Your task to perform on an android device: install app "Booking.com: Hotels and more" Image 0: 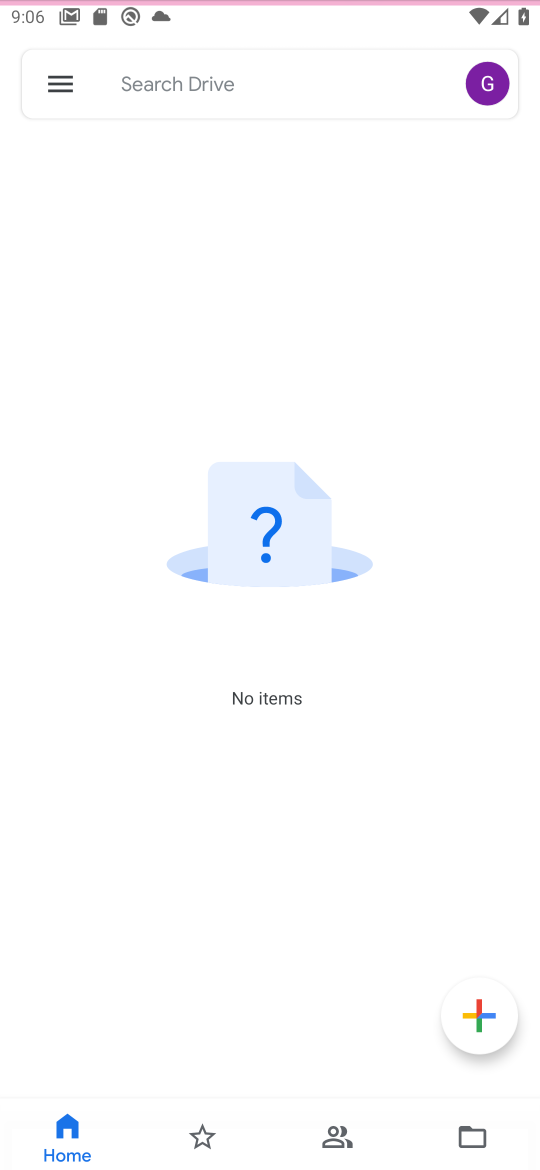
Step 0: press home button
Your task to perform on an android device: install app "Booking.com: Hotels and more" Image 1: 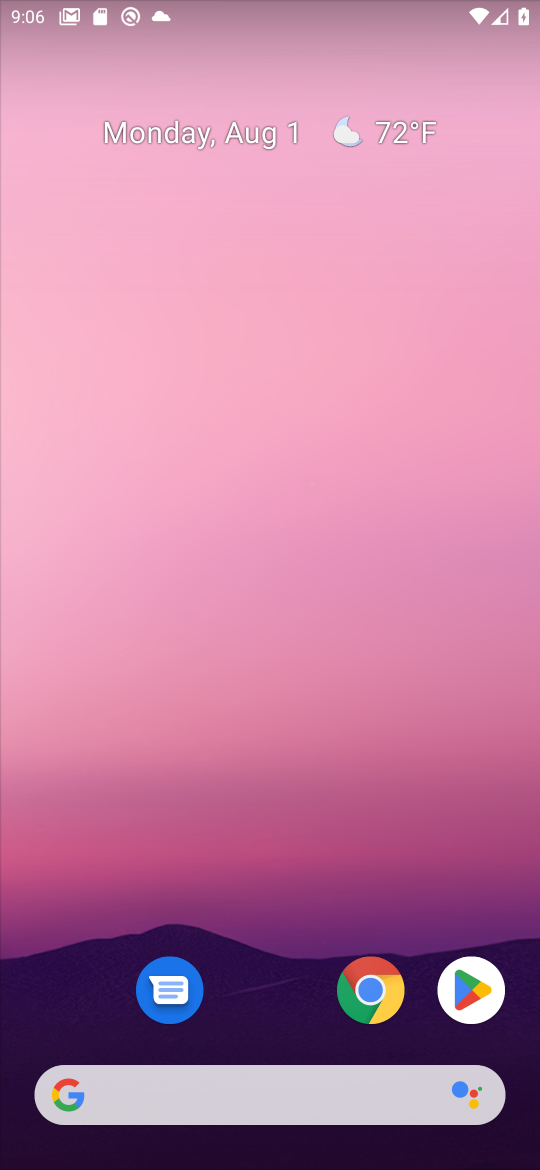
Step 1: click (468, 990)
Your task to perform on an android device: install app "Booking.com: Hotels and more" Image 2: 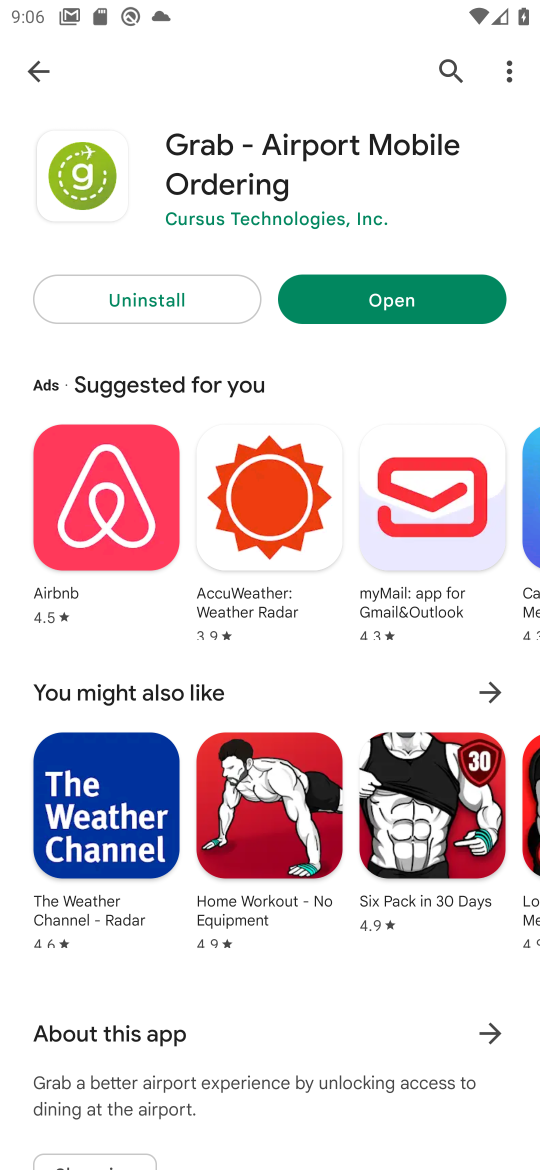
Step 2: click (443, 52)
Your task to perform on an android device: install app "Booking.com: Hotels and more" Image 3: 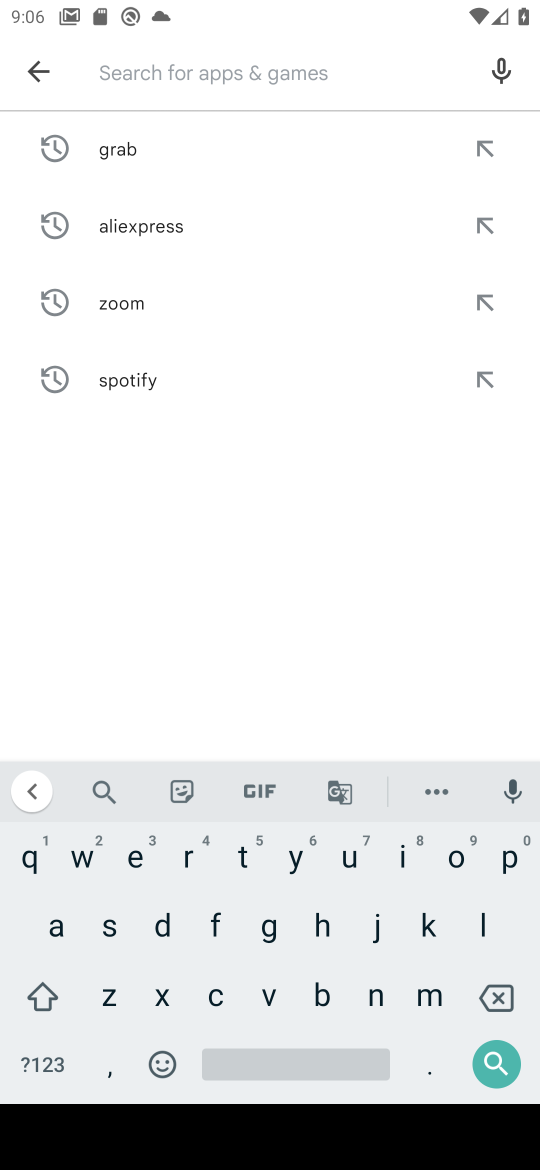
Step 3: click (212, 994)
Your task to perform on an android device: install app "Booking.com: Hotels and more" Image 4: 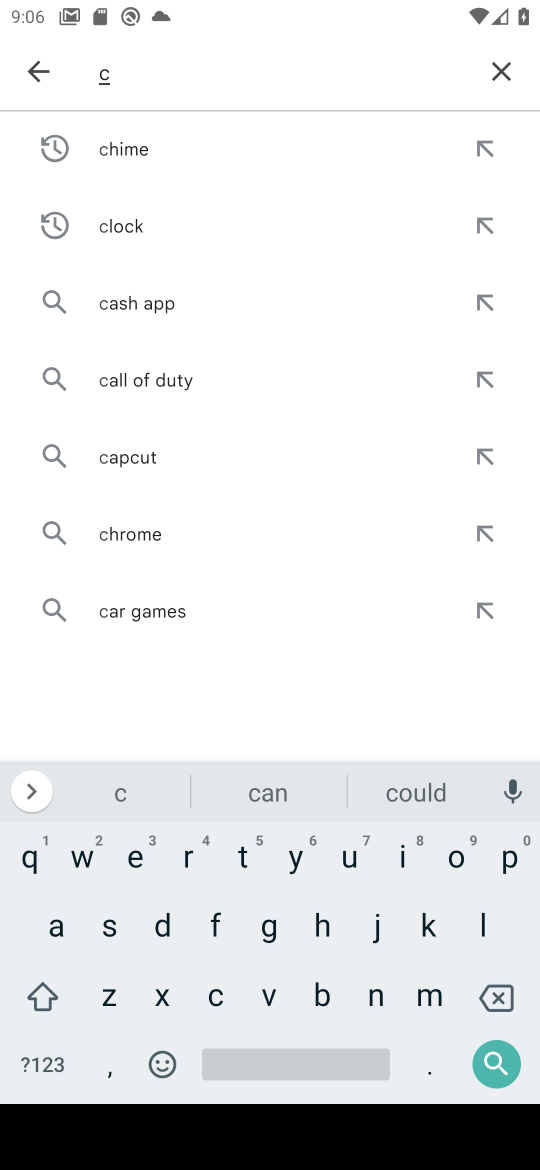
Step 4: click (320, 916)
Your task to perform on an android device: install app "Booking.com: Hotels and more" Image 5: 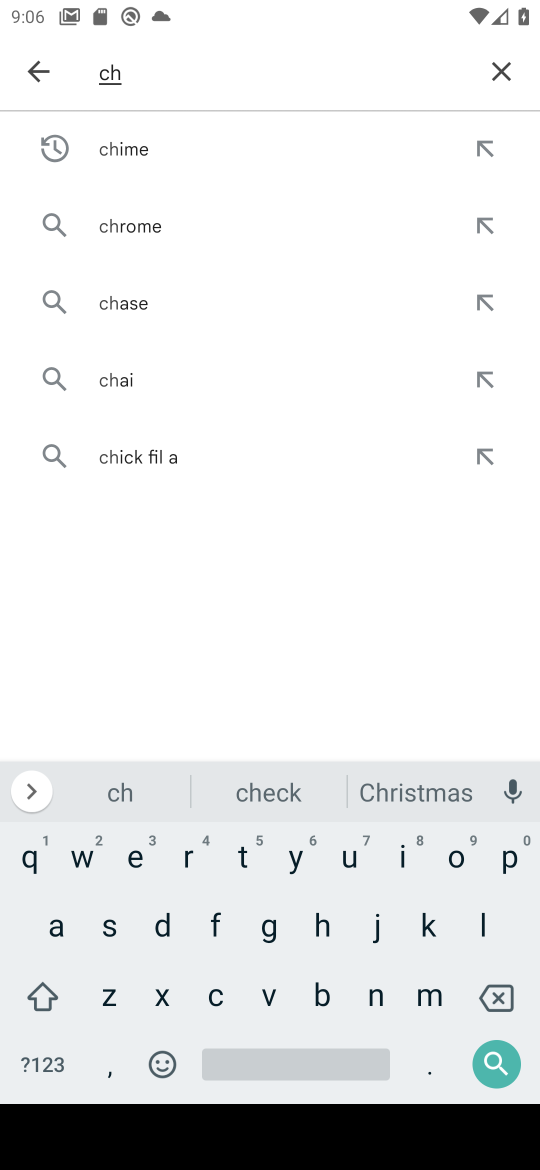
Step 5: click (395, 845)
Your task to perform on an android device: install app "Booking.com: Hotels and more" Image 6: 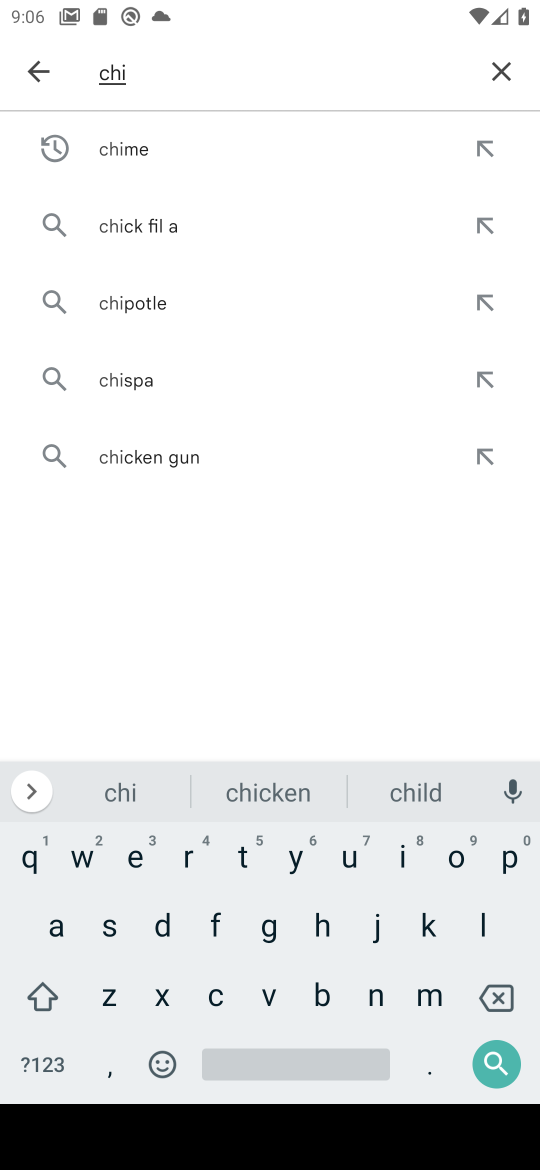
Step 6: click (422, 980)
Your task to perform on an android device: install app "Booking.com: Hotels and more" Image 7: 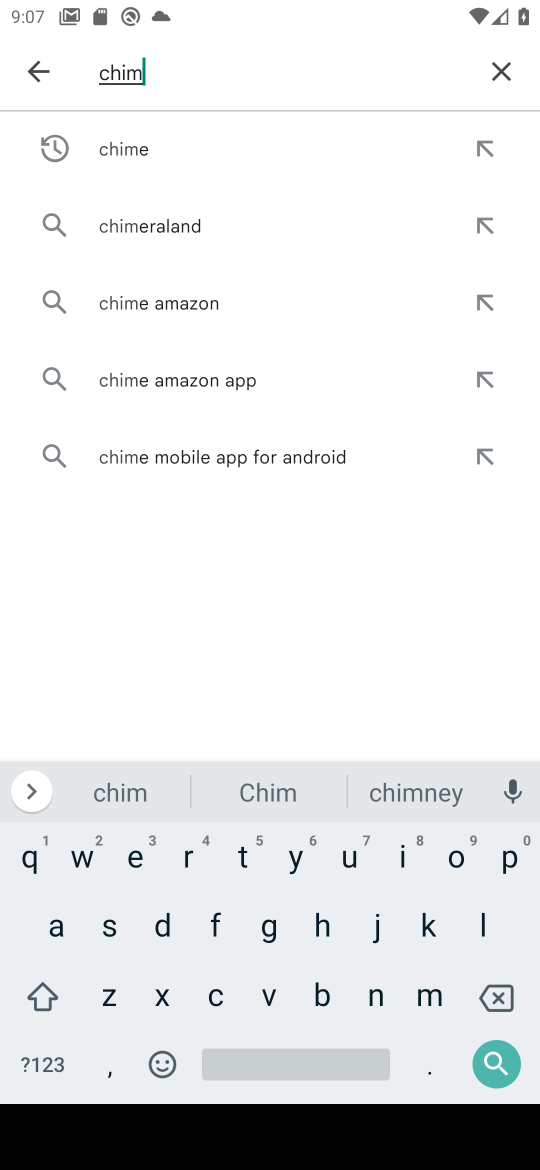
Step 7: click (131, 153)
Your task to perform on an android device: install app "Booking.com: Hotels and more" Image 8: 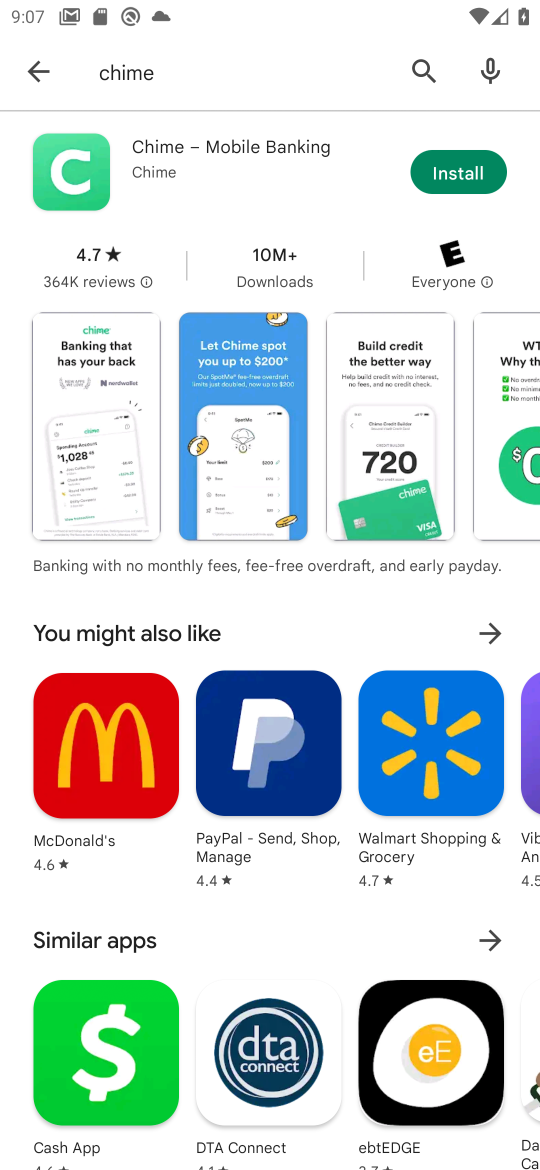
Step 8: click (415, 65)
Your task to perform on an android device: install app "Booking.com: Hotels and more" Image 9: 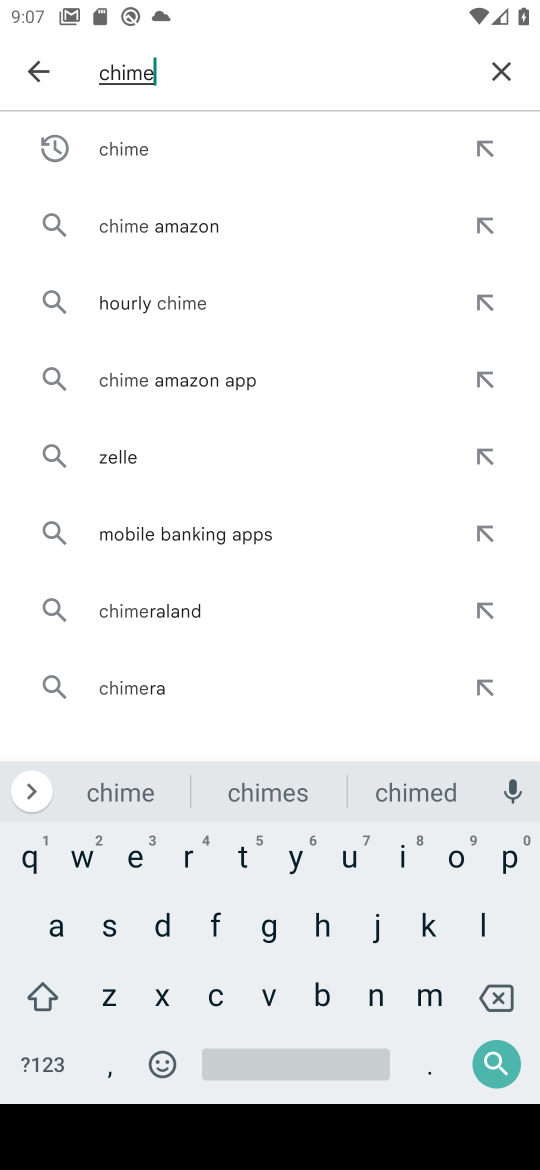
Step 9: click (496, 62)
Your task to perform on an android device: install app "Booking.com: Hotels and more" Image 10: 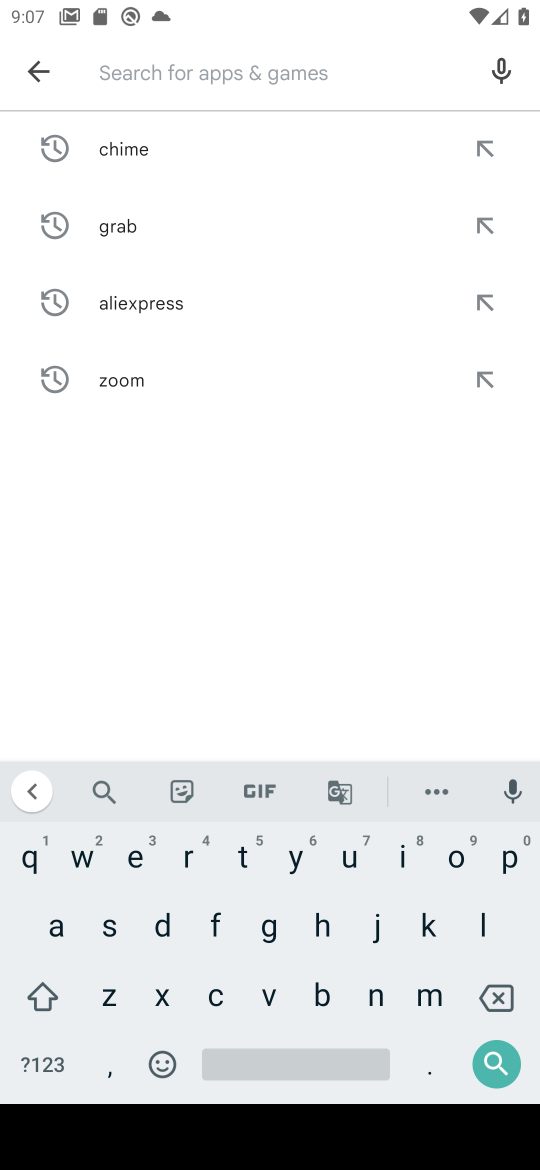
Step 10: click (317, 992)
Your task to perform on an android device: install app "Booking.com: Hotels and more" Image 11: 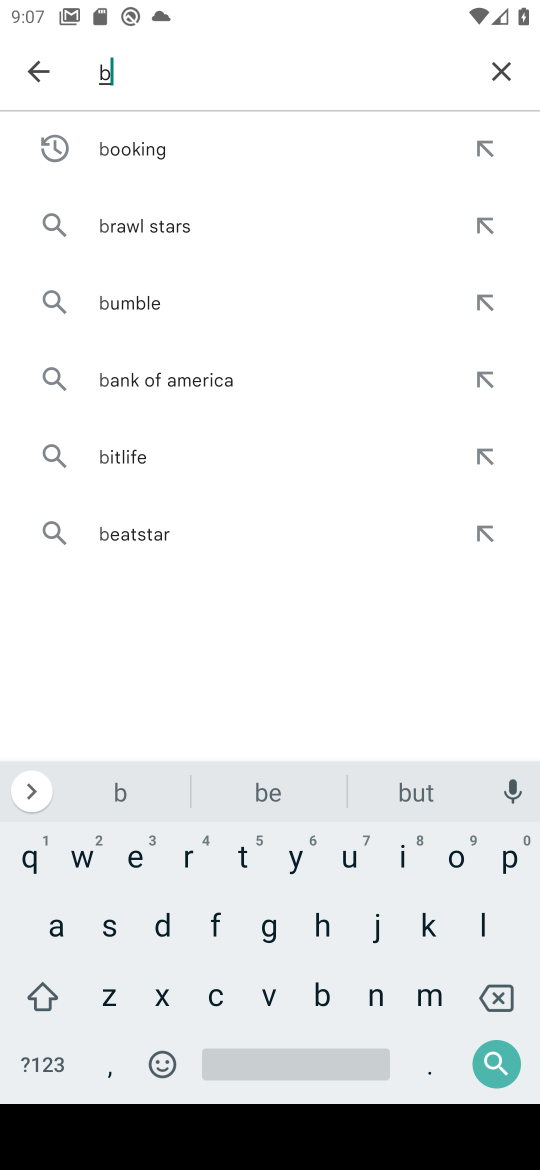
Step 11: click (454, 853)
Your task to perform on an android device: install app "Booking.com: Hotels and more" Image 12: 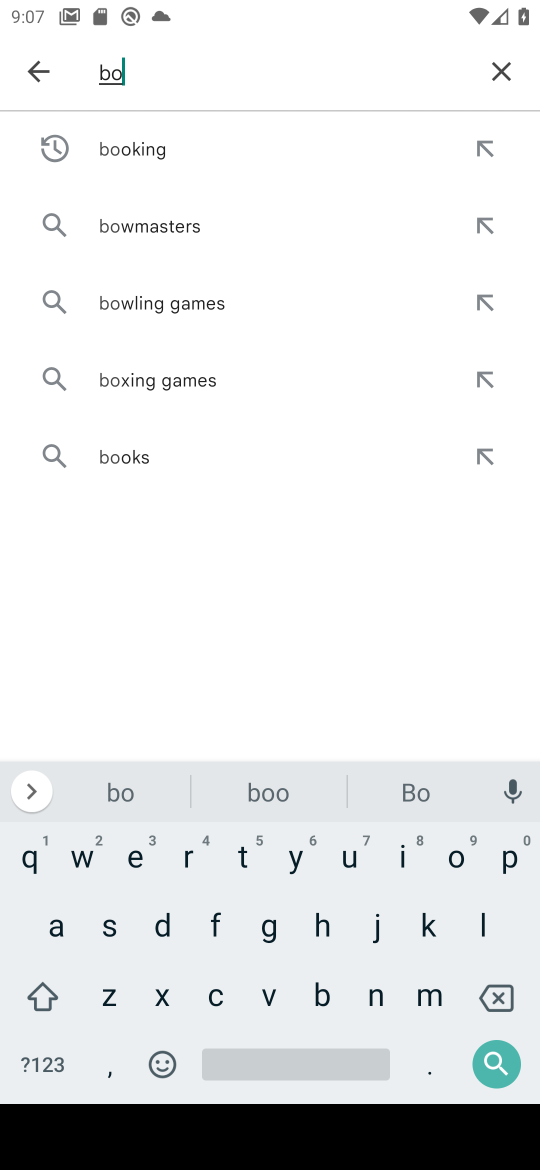
Step 12: click (168, 155)
Your task to perform on an android device: install app "Booking.com: Hotels and more" Image 13: 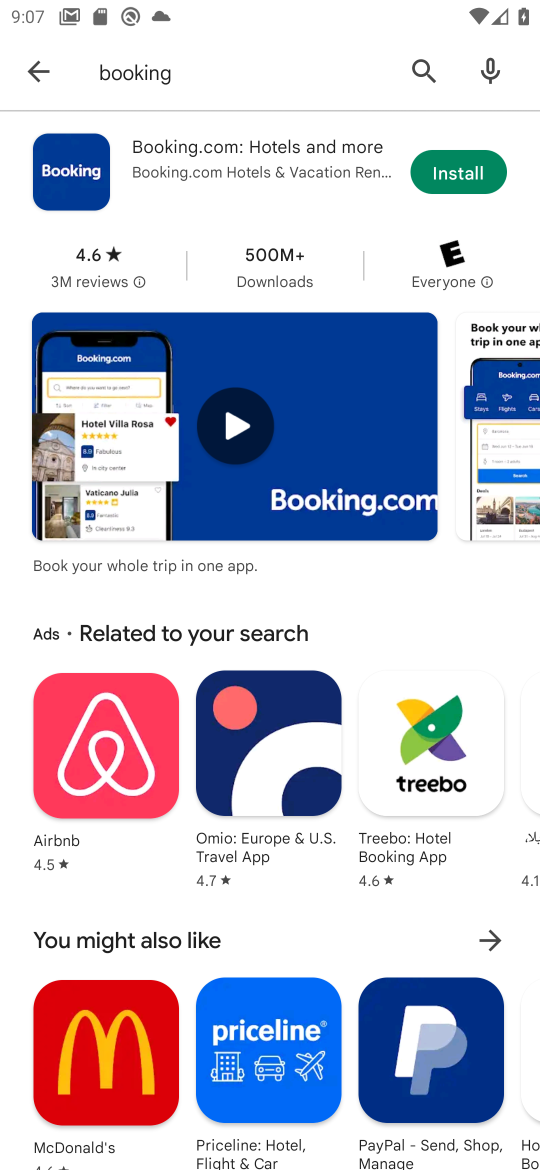
Step 13: click (445, 162)
Your task to perform on an android device: install app "Booking.com: Hotels and more" Image 14: 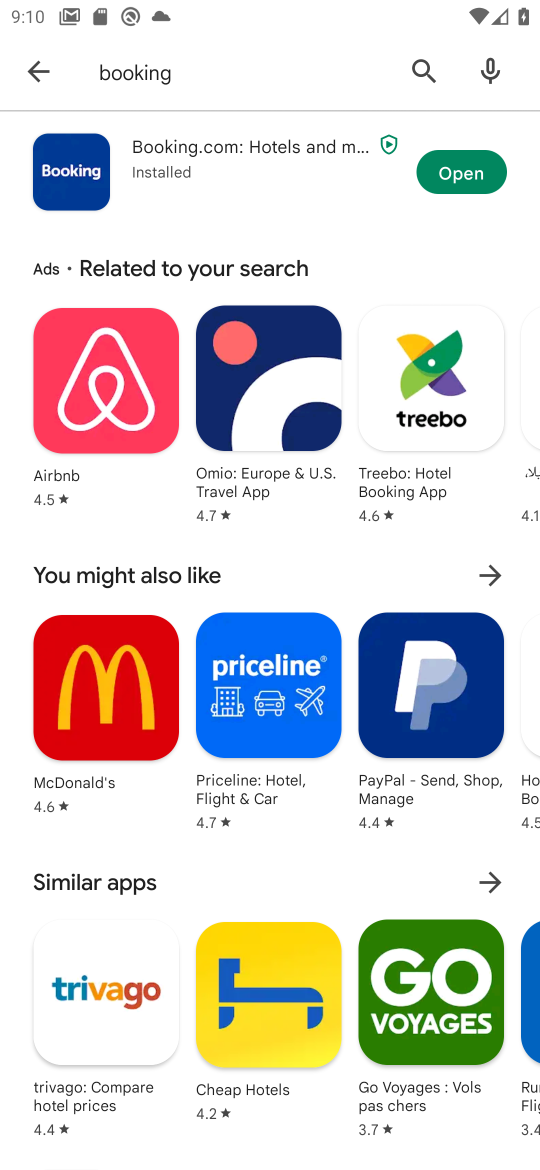
Step 14: task complete